Your task to perform on an android device: toggle notifications settings in the gmail app Image 0: 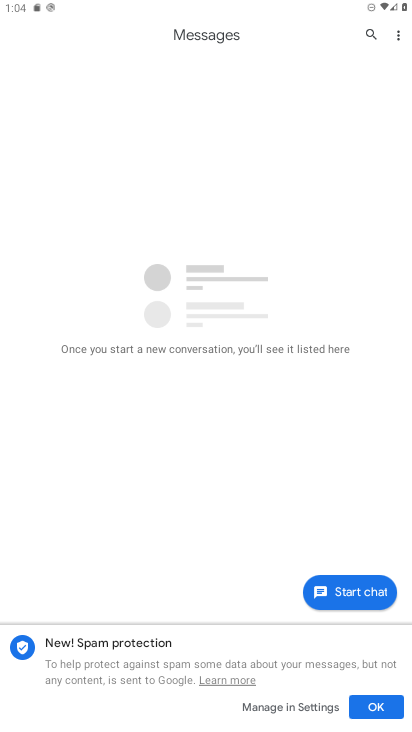
Step 0: press home button
Your task to perform on an android device: toggle notifications settings in the gmail app Image 1: 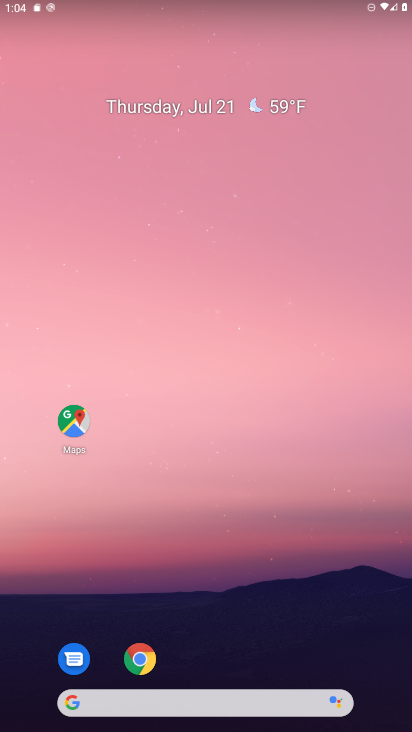
Step 1: drag from (41, 552) to (308, 91)
Your task to perform on an android device: toggle notifications settings in the gmail app Image 2: 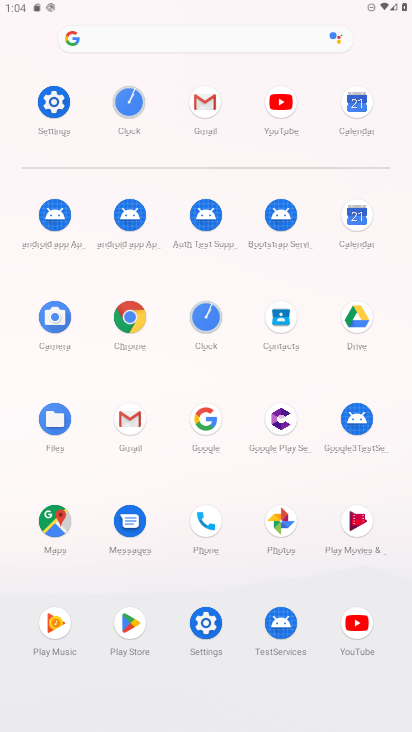
Step 2: click (199, 102)
Your task to perform on an android device: toggle notifications settings in the gmail app Image 3: 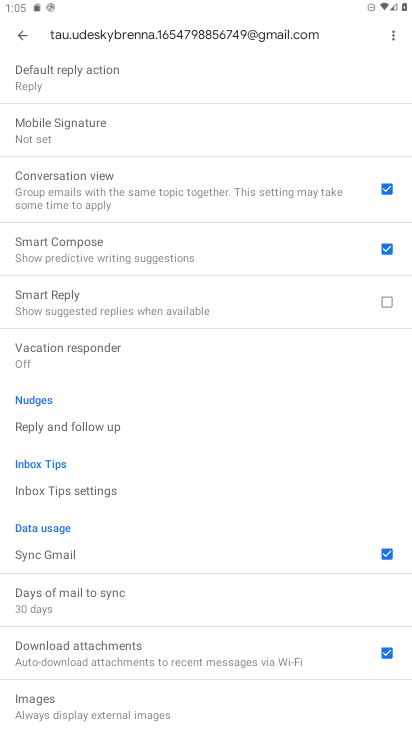
Step 3: drag from (177, 166) to (119, 630)
Your task to perform on an android device: toggle notifications settings in the gmail app Image 4: 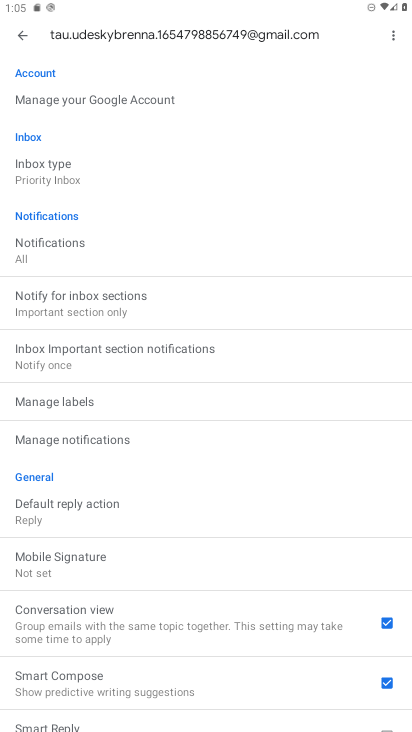
Step 4: click (109, 439)
Your task to perform on an android device: toggle notifications settings in the gmail app Image 5: 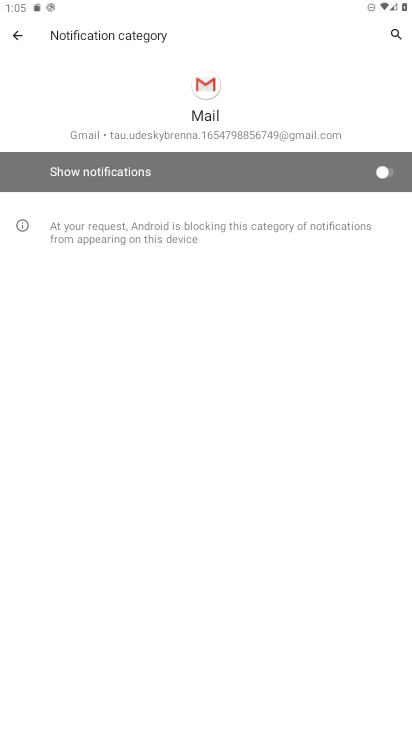
Step 5: click (376, 175)
Your task to perform on an android device: toggle notifications settings in the gmail app Image 6: 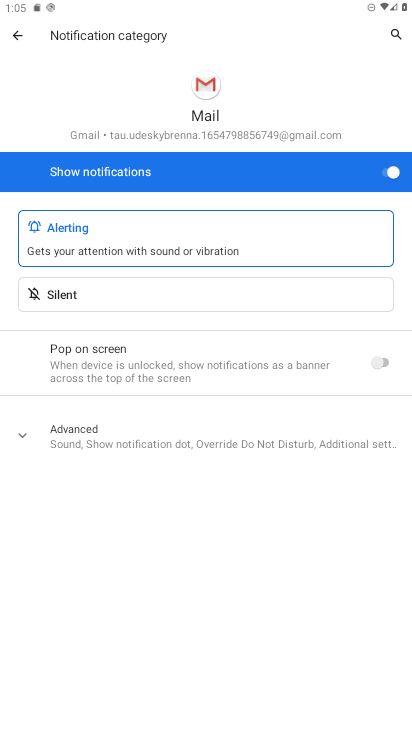
Step 6: task complete